Your task to perform on an android device: Open battery settings Image 0: 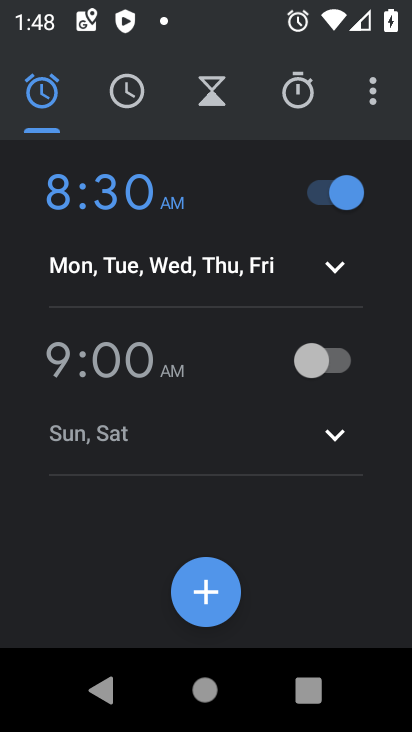
Step 0: press home button
Your task to perform on an android device: Open battery settings Image 1: 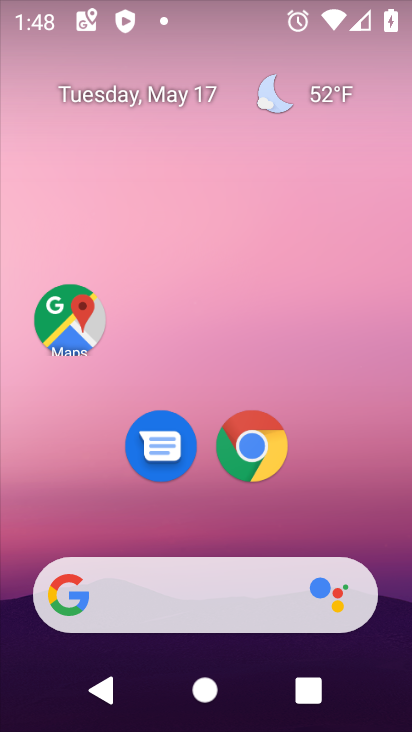
Step 1: drag from (241, 427) to (339, 152)
Your task to perform on an android device: Open battery settings Image 2: 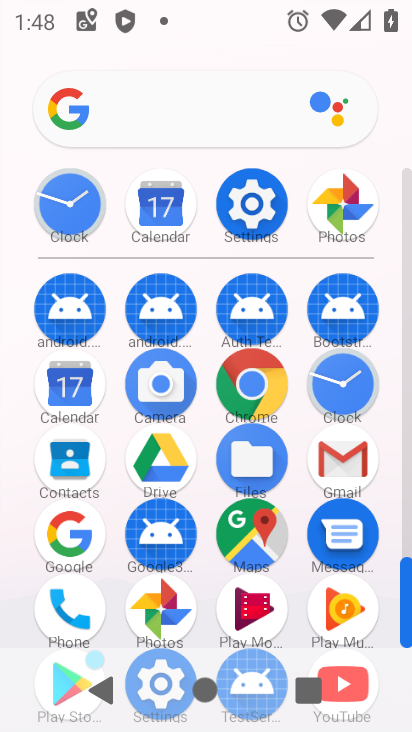
Step 2: click (252, 197)
Your task to perform on an android device: Open battery settings Image 3: 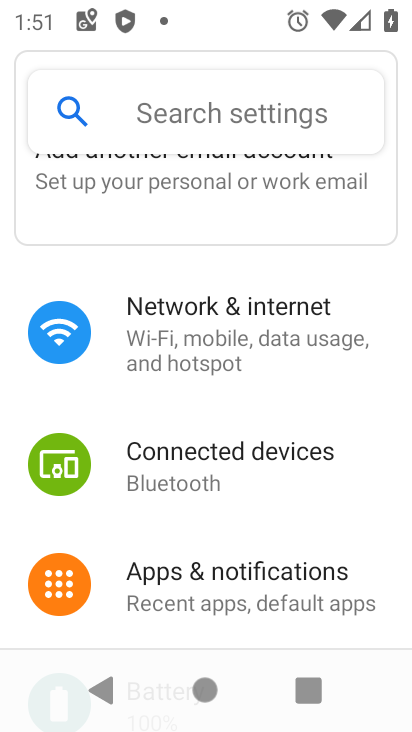
Step 3: drag from (184, 580) to (290, 228)
Your task to perform on an android device: Open battery settings Image 4: 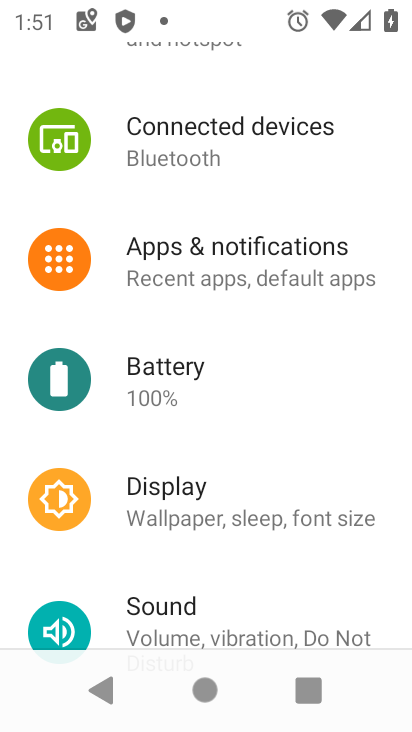
Step 4: click (177, 397)
Your task to perform on an android device: Open battery settings Image 5: 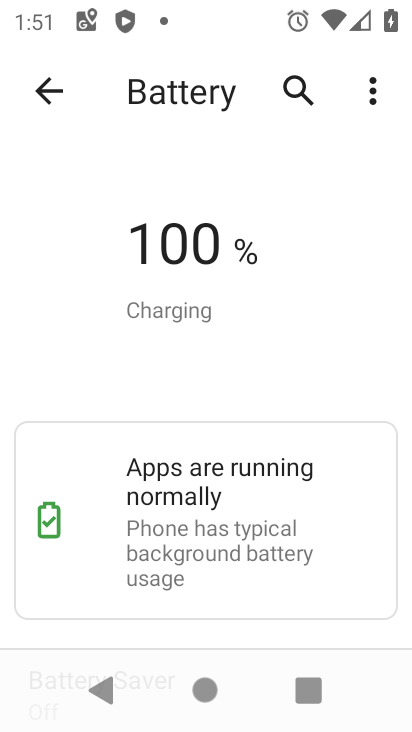
Step 5: task complete